Your task to perform on an android device: Open CNN.com Image 0: 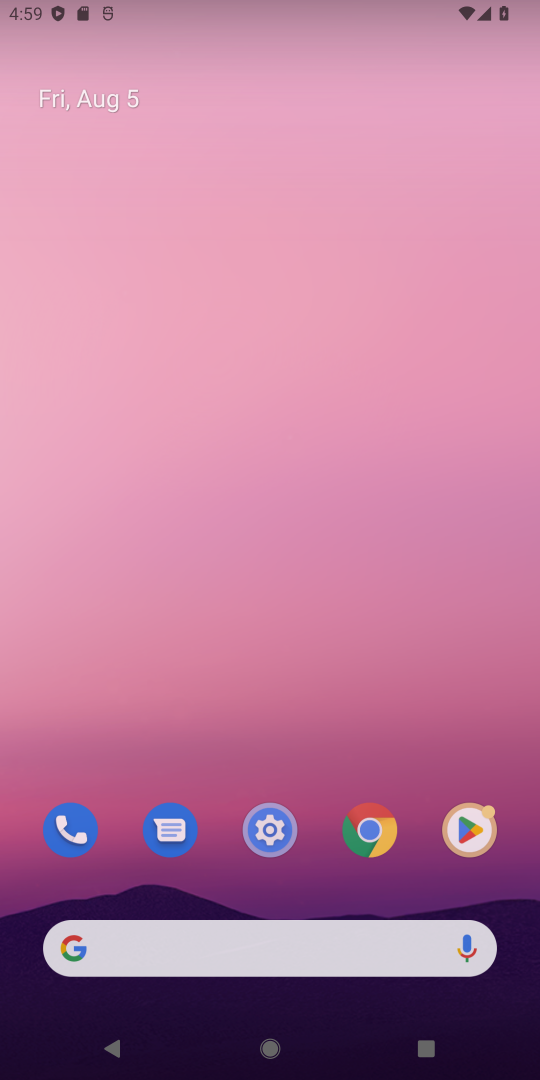
Step 0: press home button
Your task to perform on an android device: Open CNN.com Image 1: 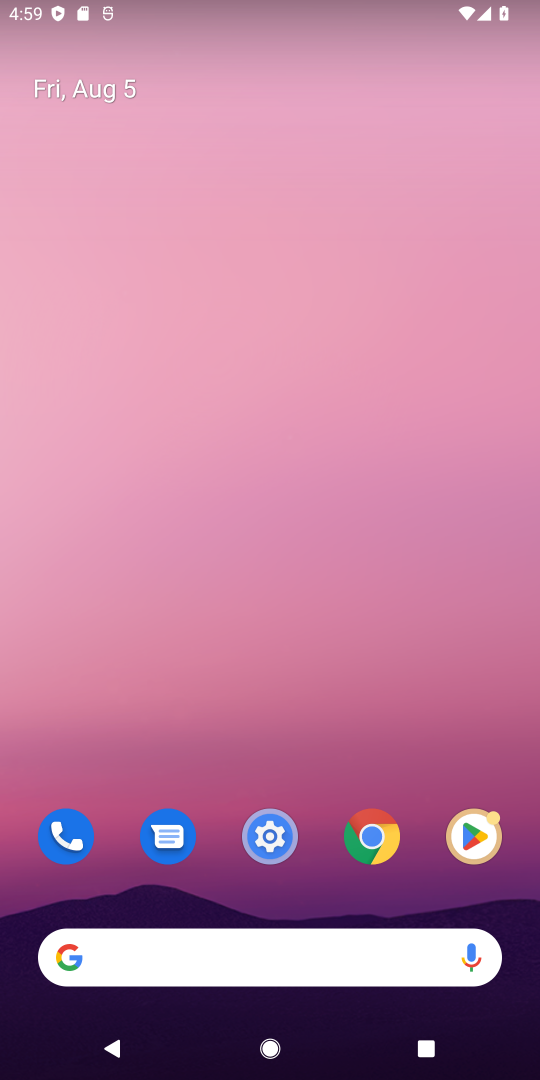
Step 1: click (370, 825)
Your task to perform on an android device: Open CNN.com Image 2: 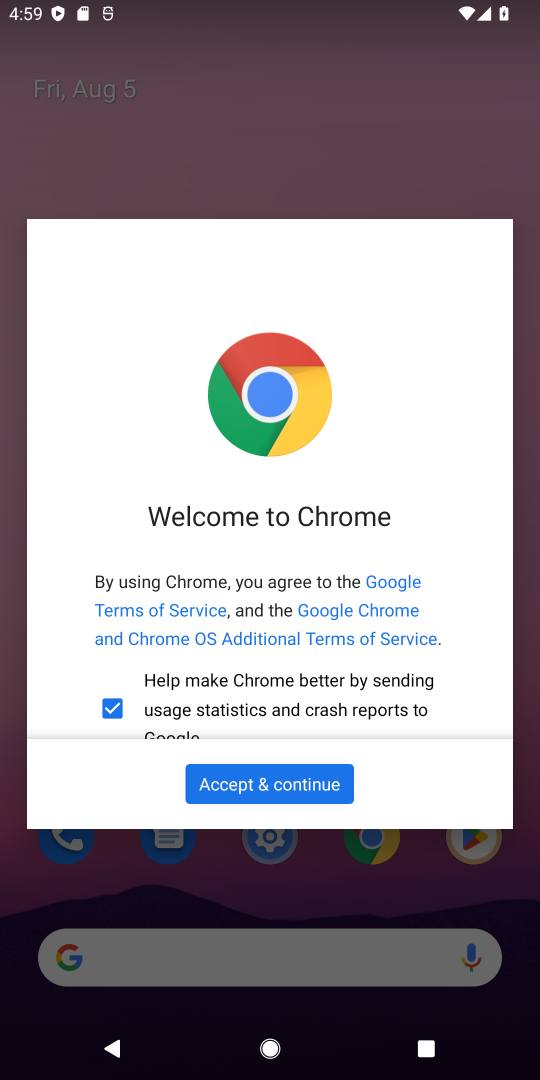
Step 2: click (262, 780)
Your task to perform on an android device: Open CNN.com Image 3: 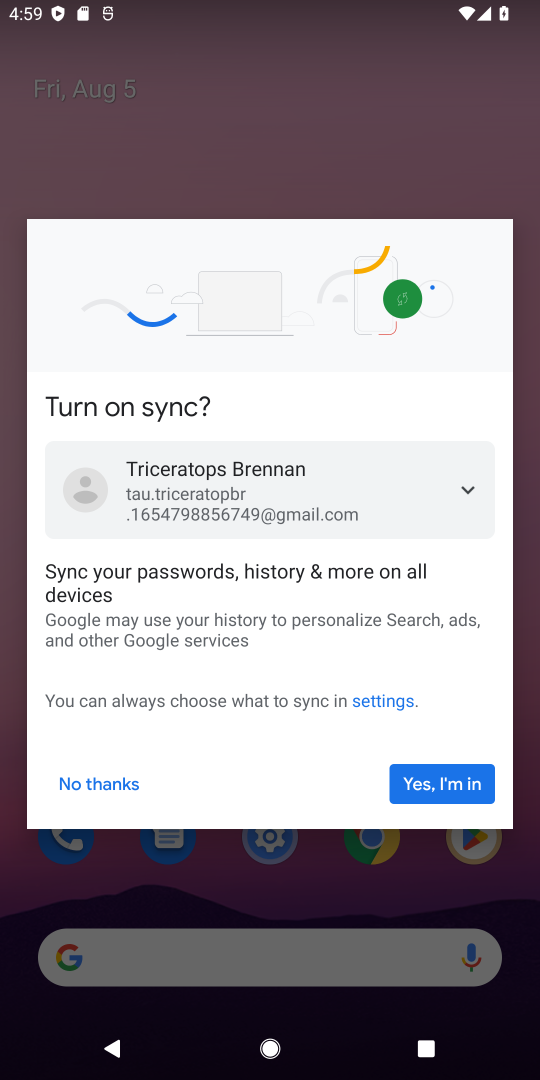
Step 3: click (447, 780)
Your task to perform on an android device: Open CNN.com Image 4: 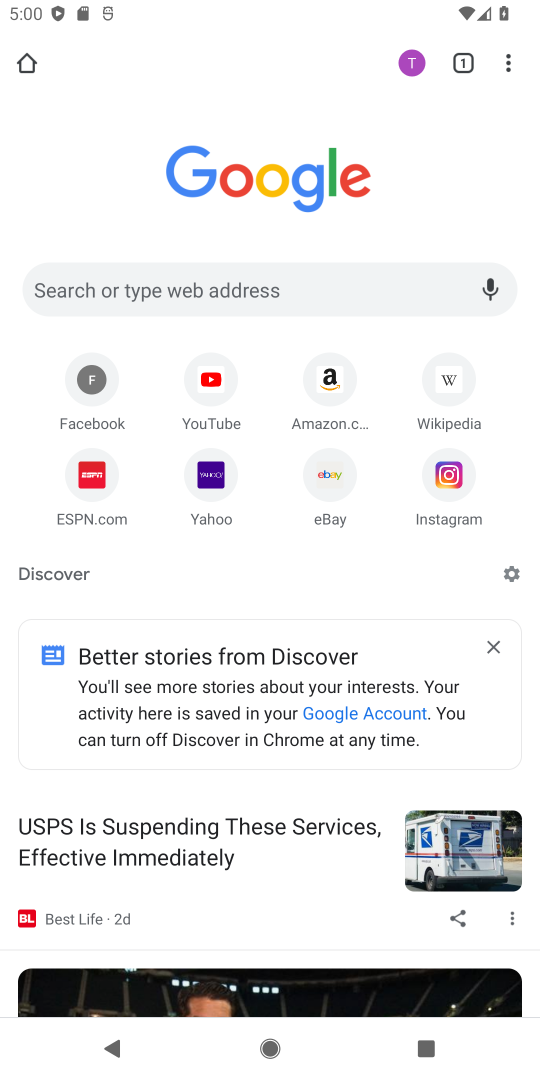
Step 4: click (172, 279)
Your task to perform on an android device: Open CNN.com Image 5: 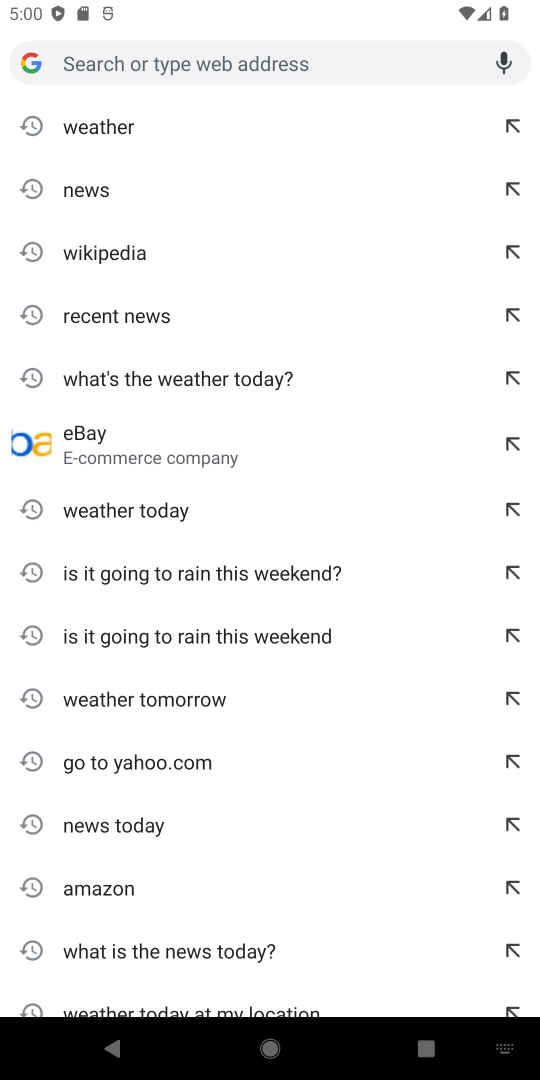
Step 5: type "cnn.com"
Your task to perform on an android device: Open CNN.com Image 6: 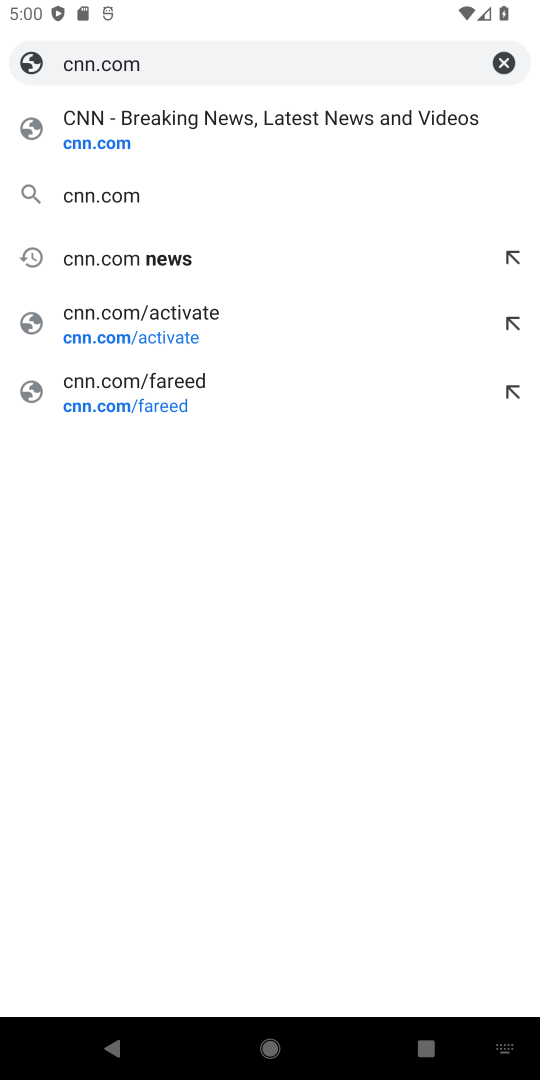
Step 6: click (144, 136)
Your task to perform on an android device: Open CNN.com Image 7: 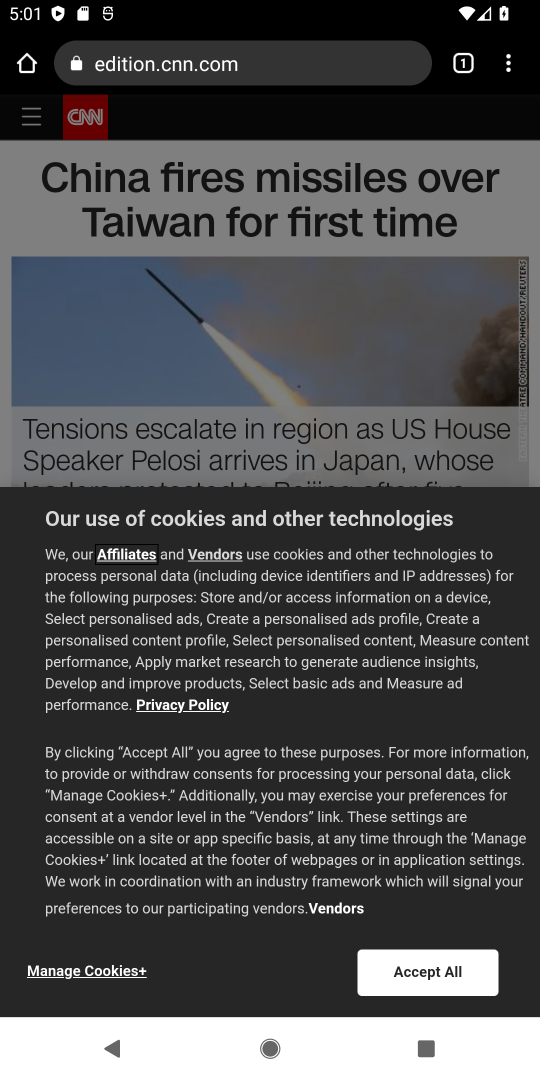
Step 7: click (432, 965)
Your task to perform on an android device: Open CNN.com Image 8: 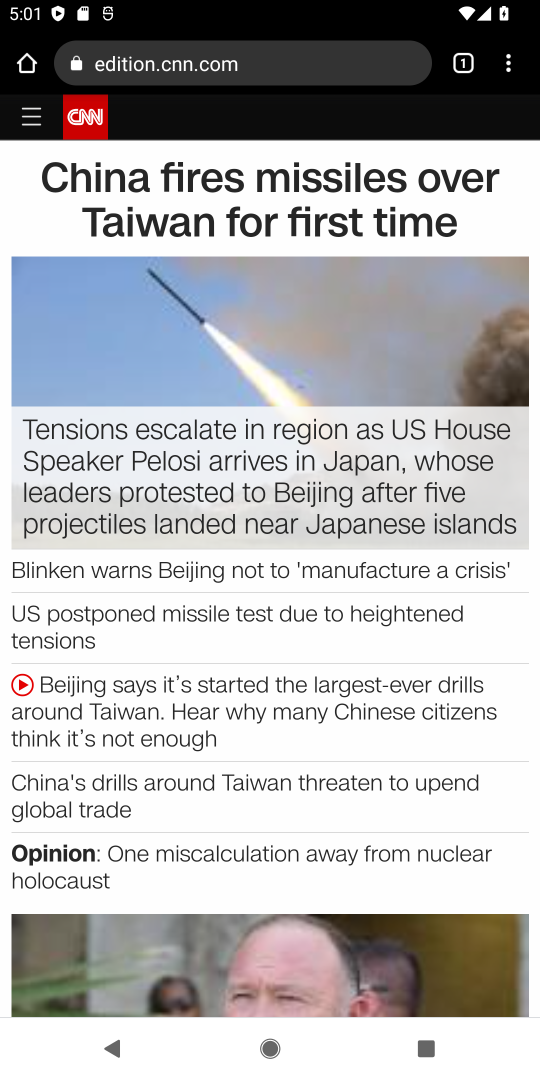
Step 8: task complete